Your task to perform on an android device: change the clock display to show seconds Image 0: 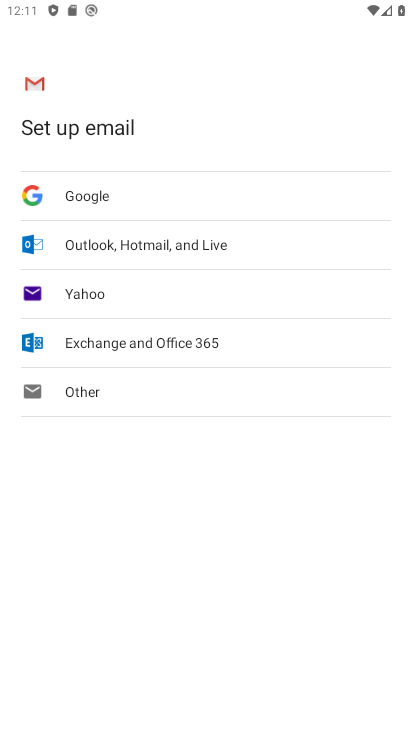
Step 0: press home button
Your task to perform on an android device: change the clock display to show seconds Image 1: 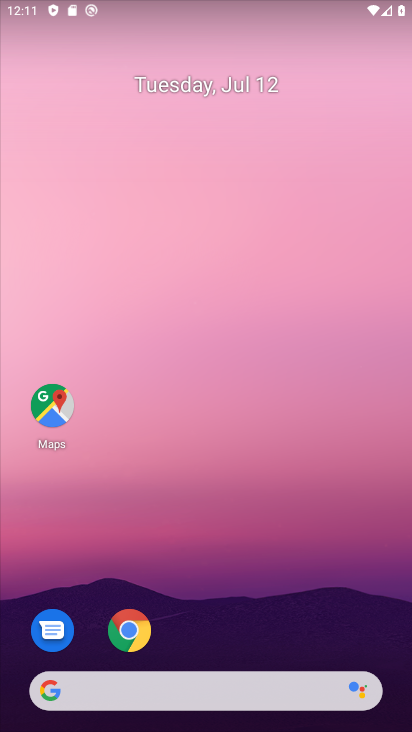
Step 1: drag from (340, 232) to (339, 125)
Your task to perform on an android device: change the clock display to show seconds Image 2: 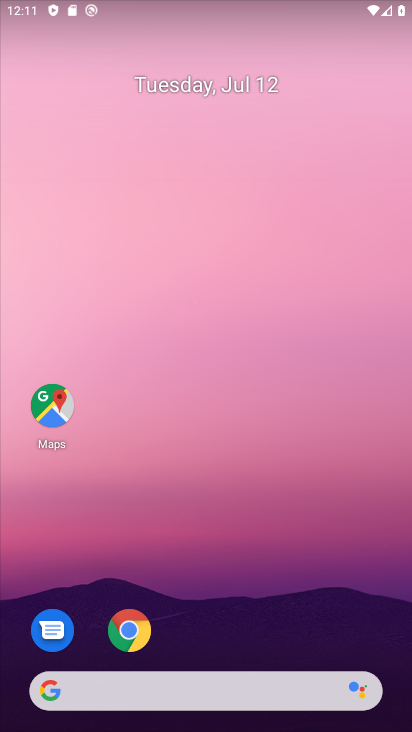
Step 2: drag from (326, 454) to (307, 109)
Your task to perform on an android device: change the clock display to show seconds Image 3: 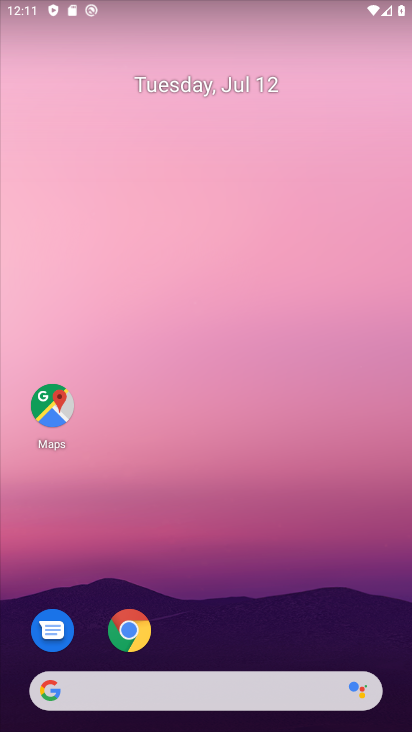
Step 3: drag from (315, 606) to (285, 48)
Your task to perform on an android device: change the clock display to show seconds Image 4: 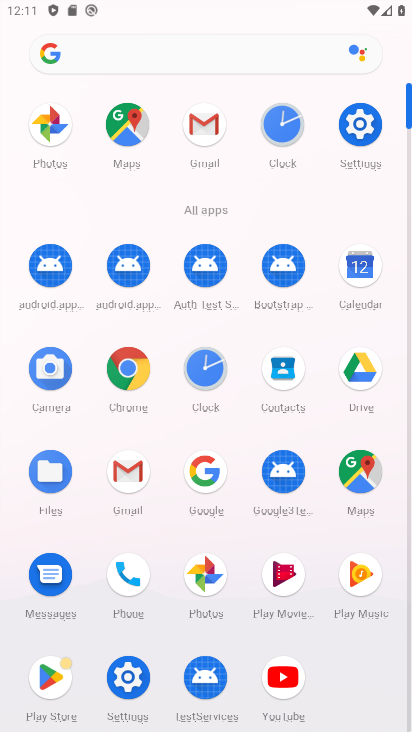
Step 4: click (207, 368)
Your task to perform on an android device: change the clock display to show seconds Image 5: 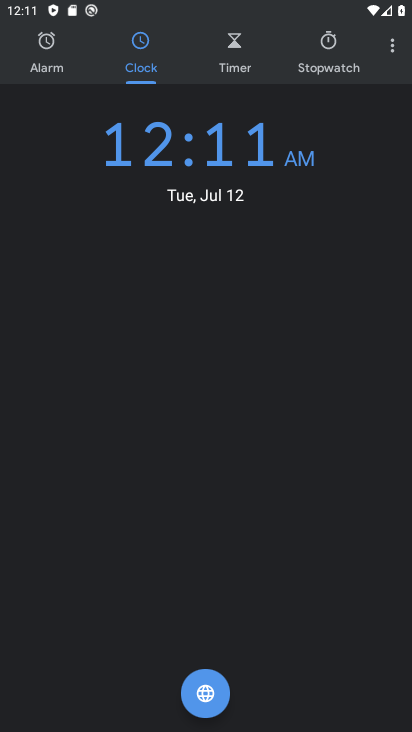
Step 5: click (392, 52)
Your task to perform on an android device: change the clock display to show seconds Image 6: 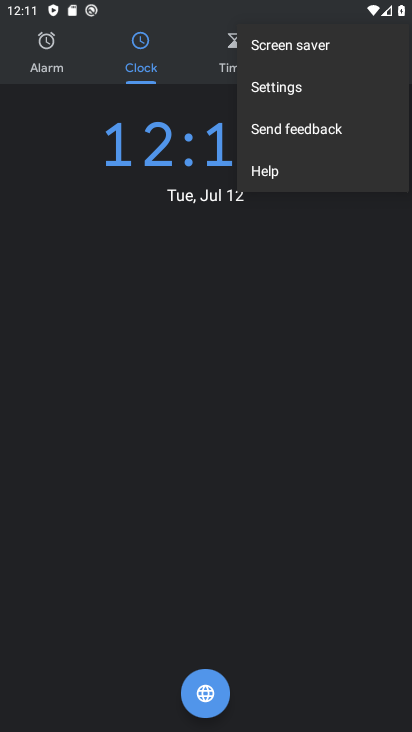
Step 6: click (276, 84)
Your task to perform on an android device: change the clock display to show seconds Image 7: 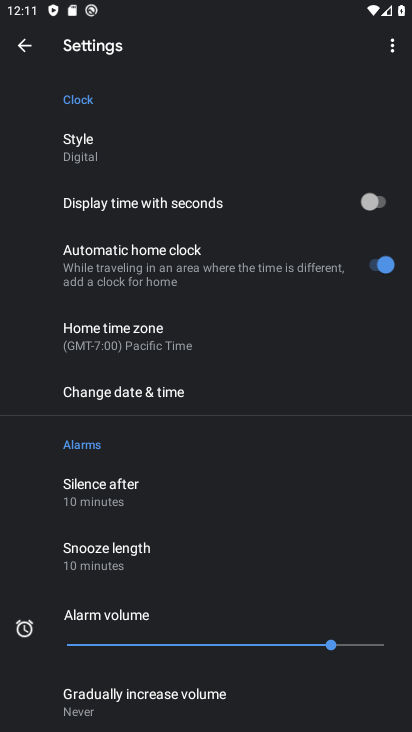
Step 7: click (379, 202)
Your task to perform on an android device: change the clock display to show seconds Image 8: 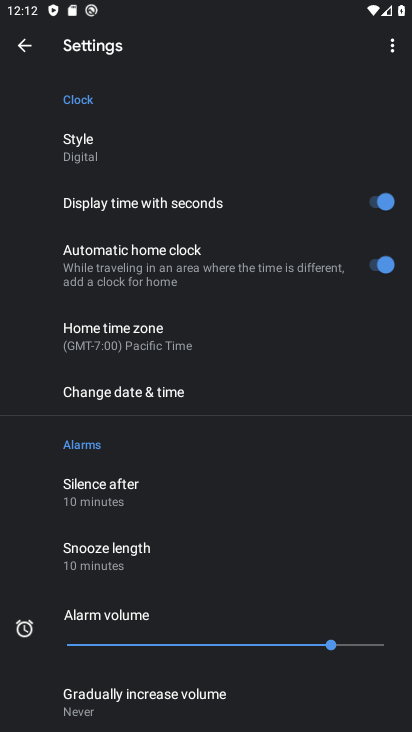
Step 8: task complete